Your task to perform on an android device: Open the Play Movies app and select the watchlist tab. Image 0: 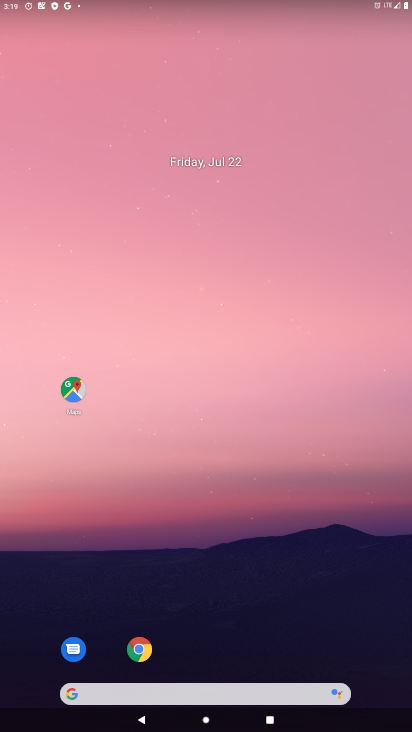
Step 0: drag from (307, 596) to (287, 49)
Your task to perform on an android device: Open the Play Movies app and select the watchlist tab. Image 1: 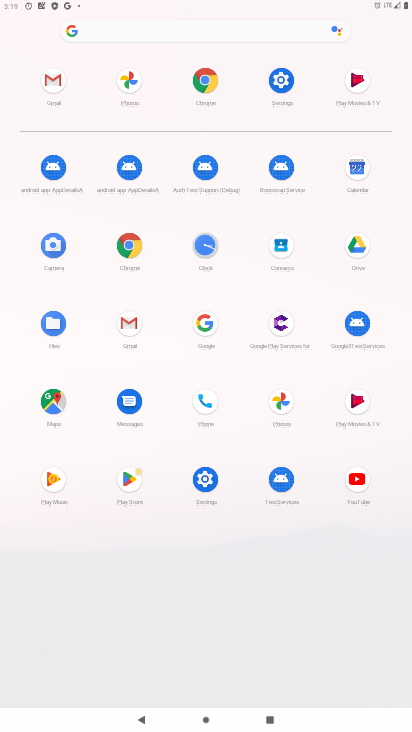
Step 1: click (354, 402)
Your task to perform on an android device: Open the Play Movies app and select the watchlist tab. Image 2: 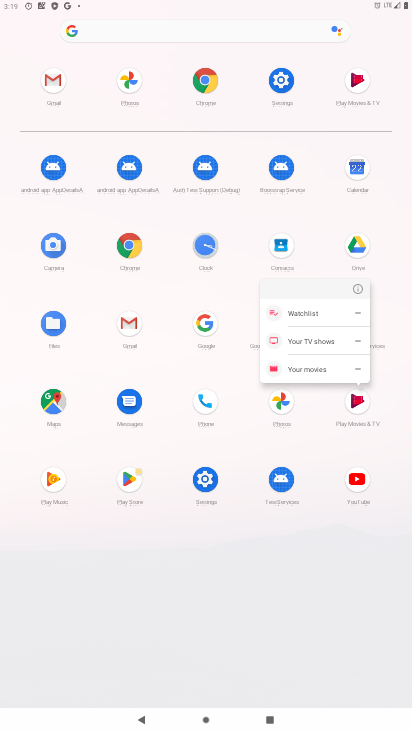
Step 2: click (354, 402)
Your task to perform on an android device: Open the Play Movies app and select the watchlist tab. Image 3: 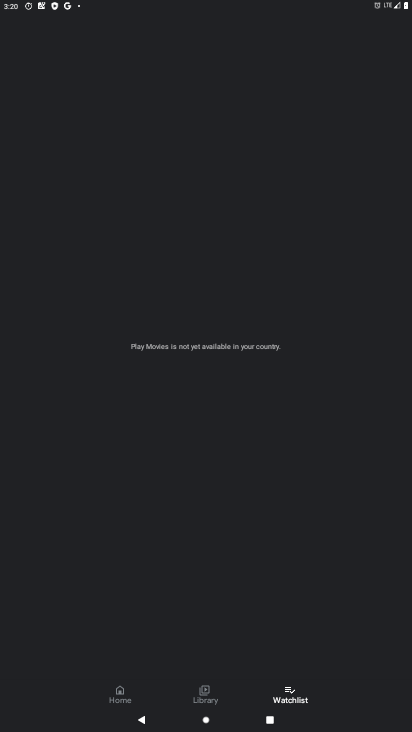
Step 3: task complete